Your task to perform on an android device: Open Yahoo.com Image 0: 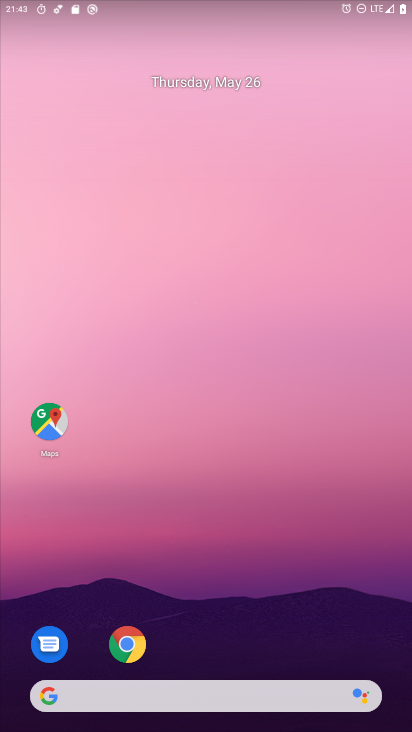
Step 0: drag from (194, 660) to (290, 250)
Your task to perform on an android device: Open Yahoo.com Image 1: 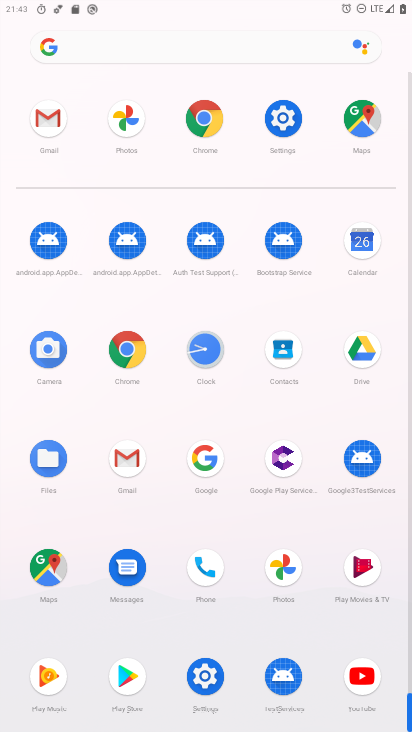
Step 1: click (209, 112)
Your task to perform on an android device: Open Yahoo.com Image 2: 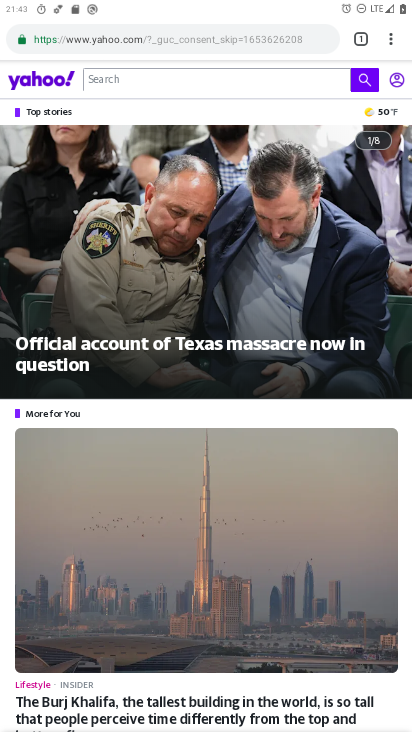
Step 2: drag from (291, 458) to (291, 288)
Your task to perform on an android device: Open Yahoo.com Image 3: 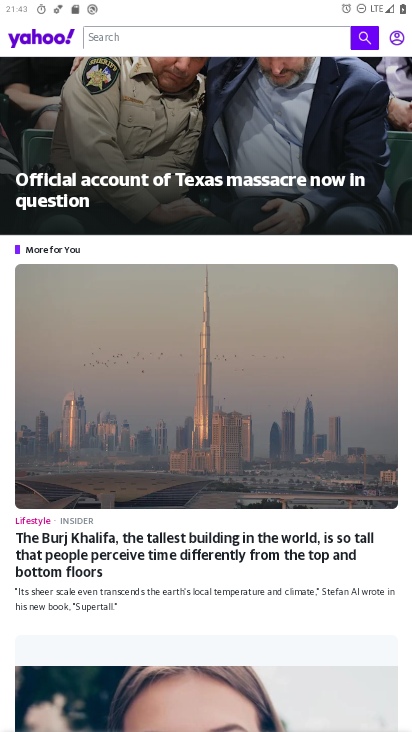
Step 3: drag from (238, 606) to (267, 307)
Your task to perform on an android device: Open Yahoo.com Image 4: 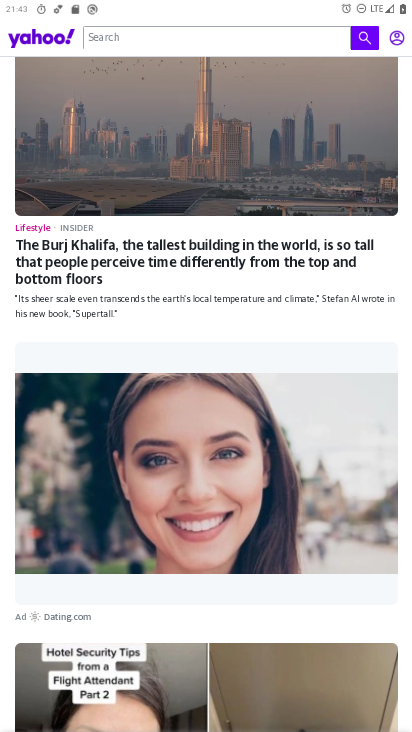
Step 4: drag from (334, 495) to (364, 4)
Your task to perform on an android device: Open Yahoo.com Image 5: 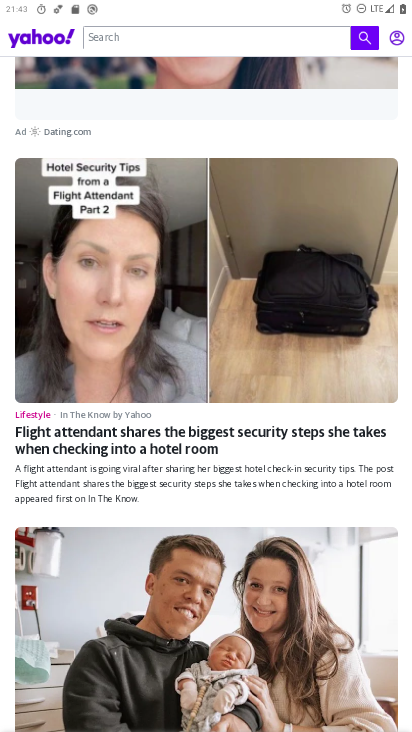
Step 5: drag from (272, 476) to (300, 117)
Your task to perform on an android device: Open Yahoo.com Image 6: 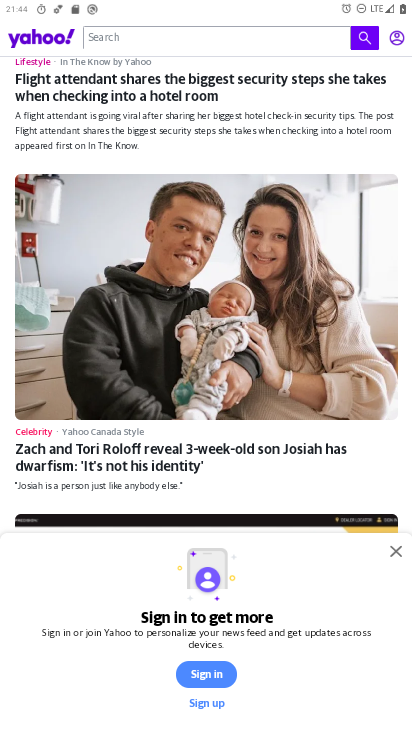
Step 6: drag from (301, 35) to (268, 634)
Your task to perform on an android device: Open Yahoo.com Image 7: 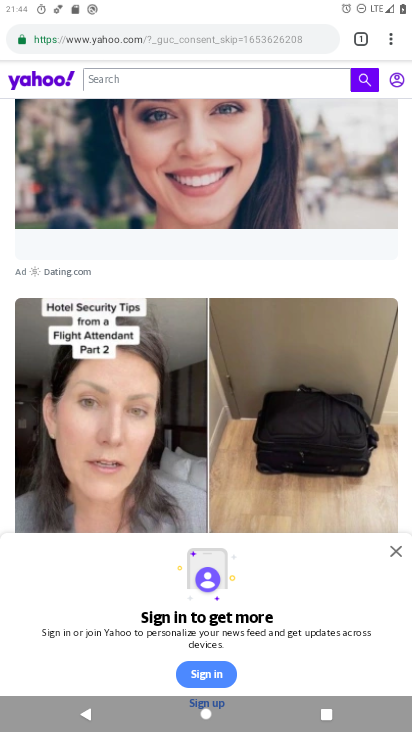
Step 7: click (395, 552)
Your task to perform on an android device: Open Yahoo.com Image 8: 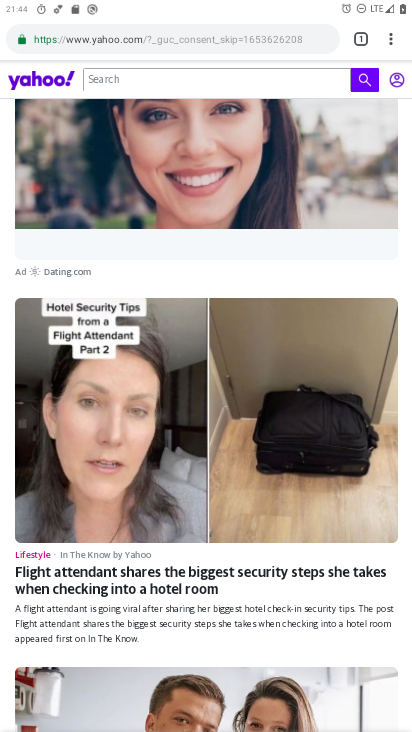
Step 8: task complete